Your task to perform on an android device: Show me recent news Image 0: 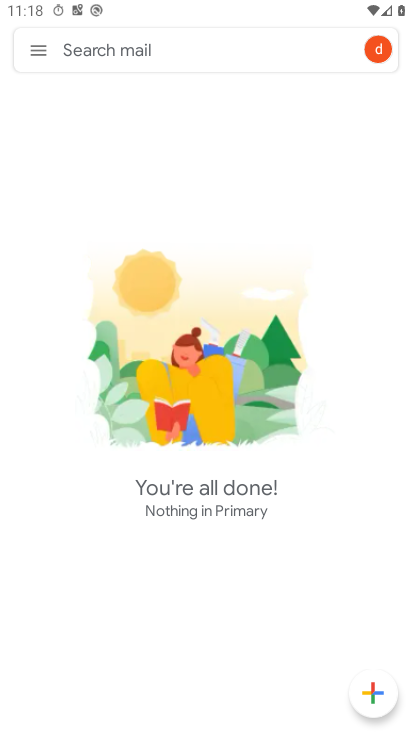
Step 0: press home button
Your task to perform on an android device: Show me recent news Image 1: 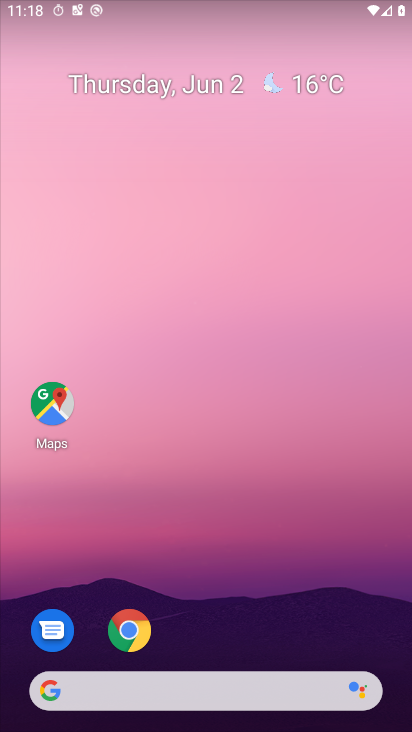
Step 1: drag from (229, 662) to (282, 138)
Your task to perform on an android device: Show me recent news Image 2: 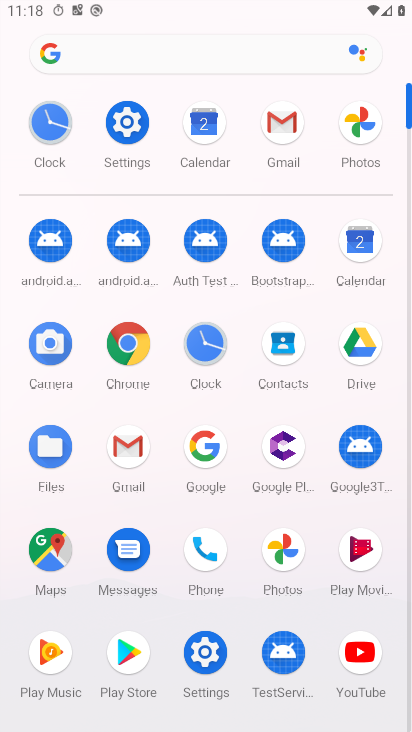
Step 2: click (223, 55)
Your task to perform on an android device: Show me recent news Image 3: 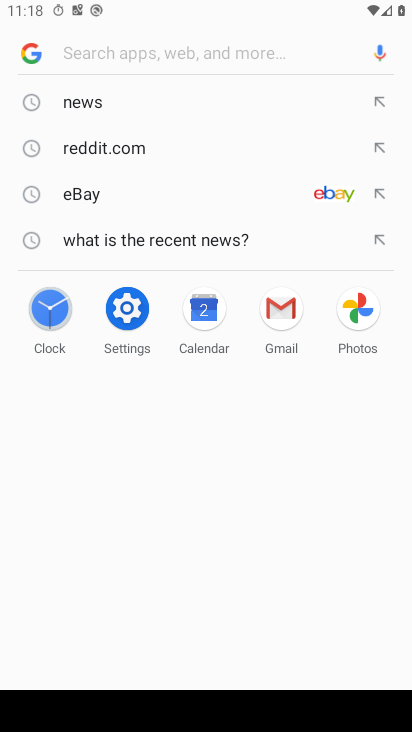
Step 3: type "recent news"
Your task to perform on an android device: Show me recent news Image 4: 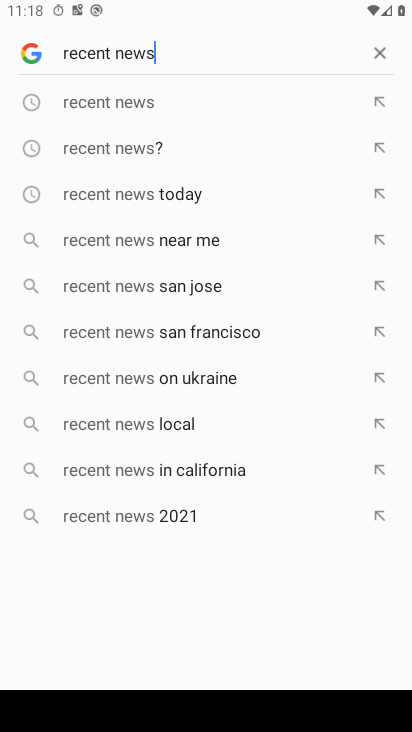
Step 4: click (145, 111)
Your task to perform on an android device: Show me recent news Image 5: 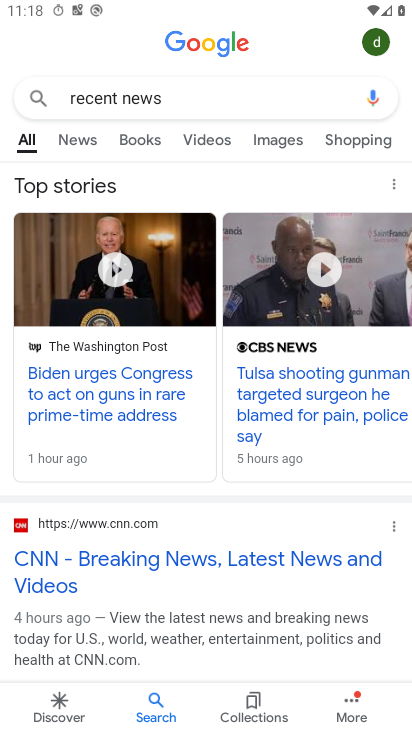
Step 5: task complete